Your task to perform on an android device: search for starred emails in the gmail app Image 0: 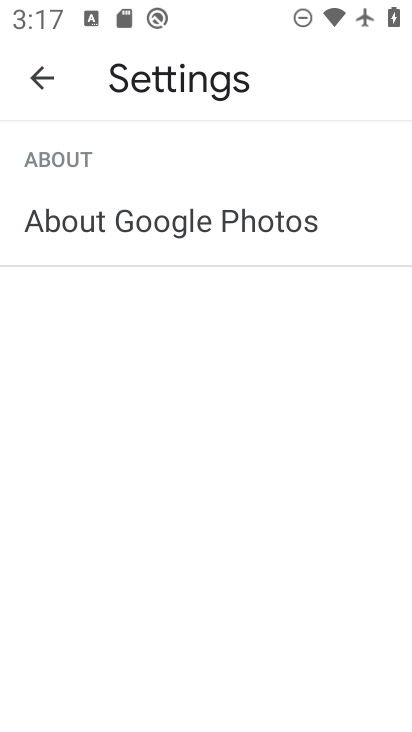
Step 0: press home button
Your task to perform on an android device: search for starred emails in the gmail app Image 1: 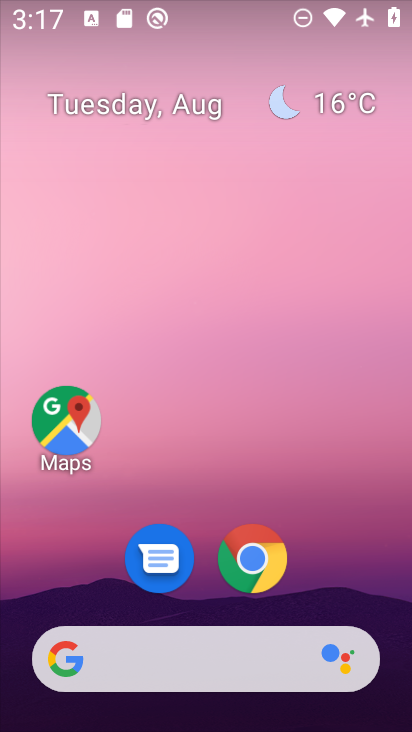
Step 1: drag from (204, 513) to (232, 149)
Your task to perform on an android device: search for starred emails in the gmail app Image 2: 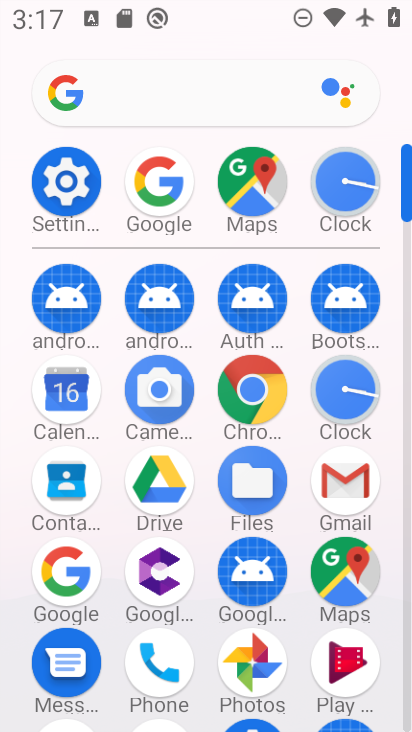
Step 2: click (330, 481)
Your task to perform on an android device: search for starred emails in the gmail app Image 3: 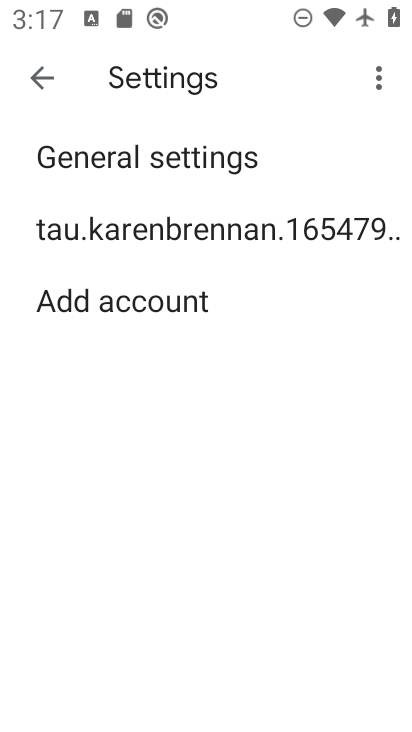
Step 3: drag from (134, 229) to (187, 229)
Your task to perform on an android device: search for starred emails in the gmail app Image 4: 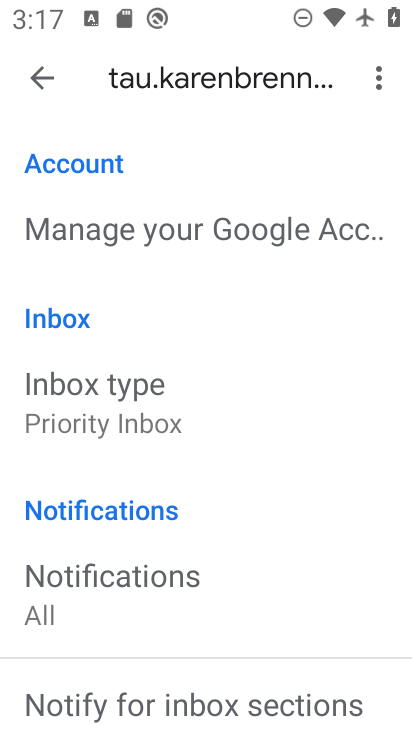
Step 4: click (33, 78)
Your task to perform on an android device: search for starred emails in the gmail app Image 5: 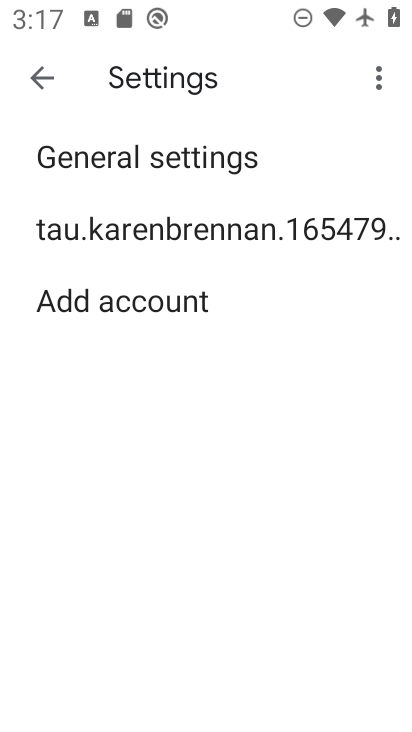
Step 5: click (33, 78)
Your task to perform on an android device: search for starred emails in the gmail app Image 6: 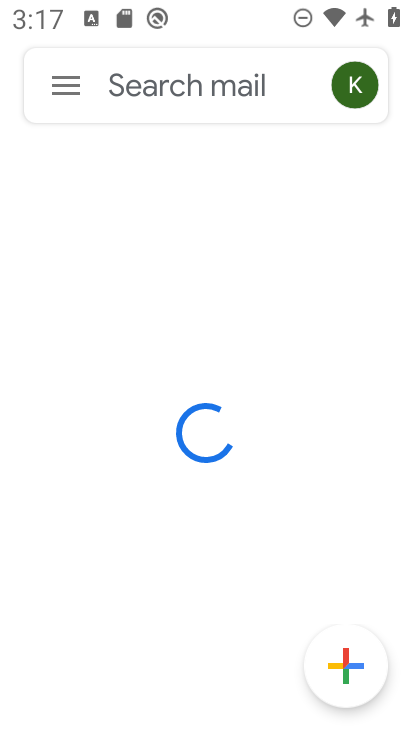
Step 6: click (53, 77)
Your task to perform on an android device: search for starred emails in the gmail app Image 7: 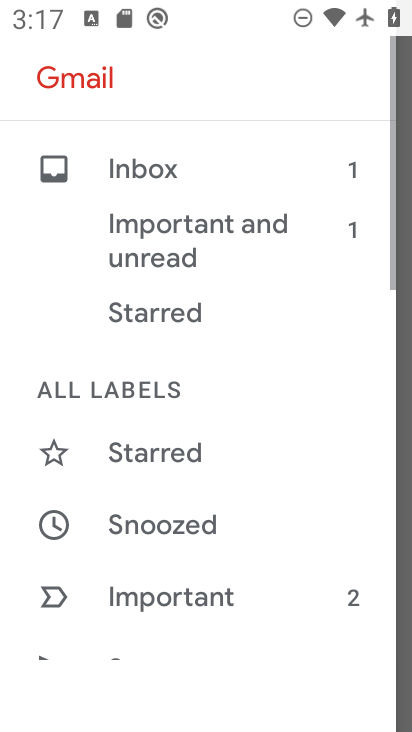
Step 7: click (171, 330)
Your task to perform on an android device: search for starred emails in the gmail app Image 8: 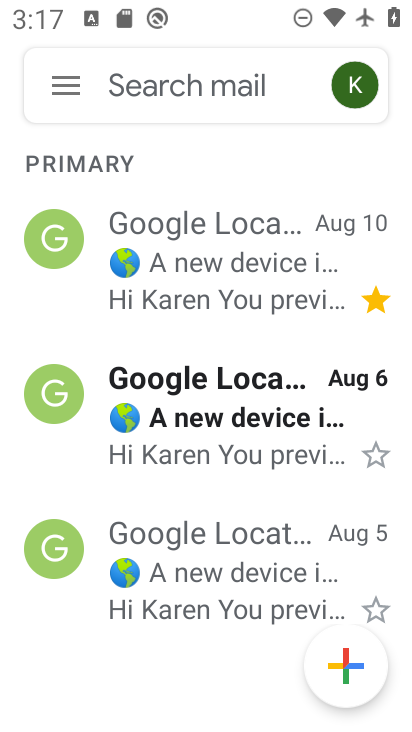
Step 8: task complete